Your task to perform on an android device: open a bookmark in the chrome app Image 0: 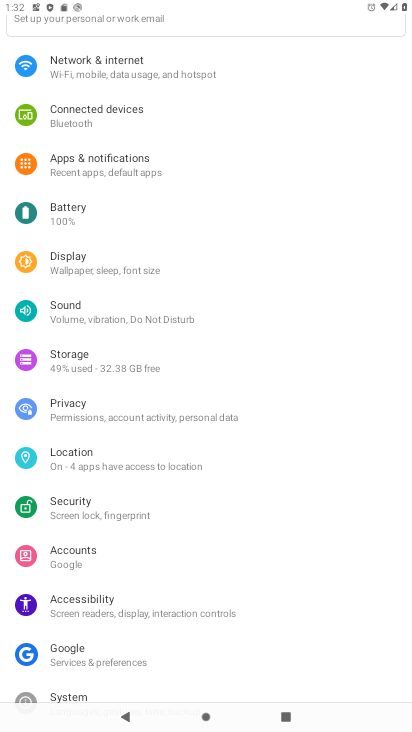
Step 0: press home button
Your task to perform on an android device: open a bookmark in the chrome app Image 1: 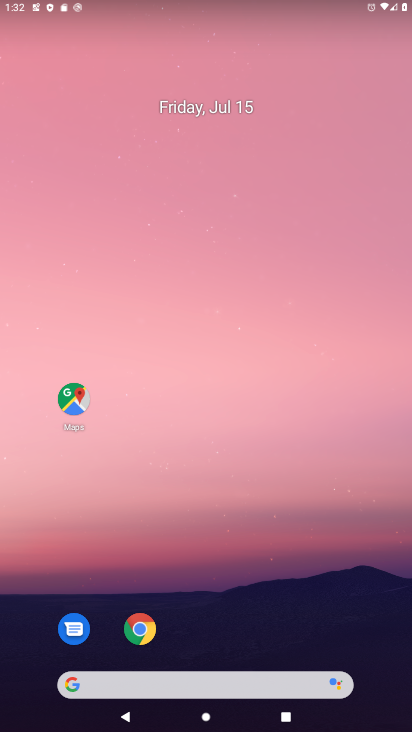
Step 1: drag from (321, 644) to (272, 137)
Your task to perform on an android device: open a bookmark in the chrome app Image 2: 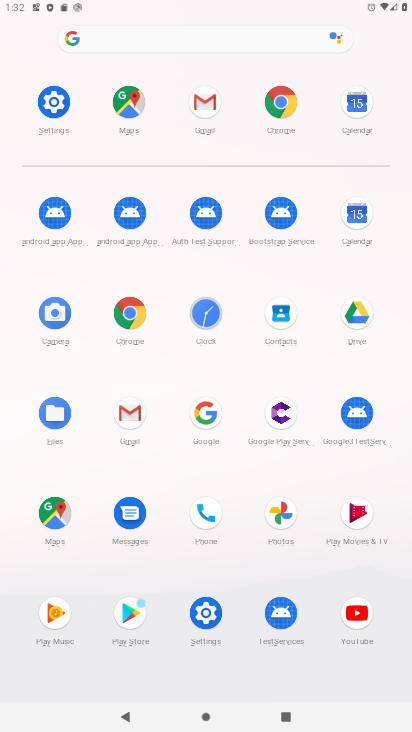
Step 2: click (135, 317)
Your task to perform on an android device: open a bookmark in the chrome app Image 3: 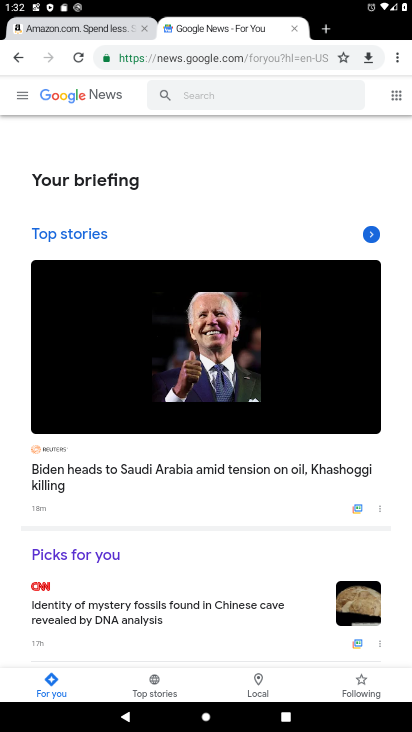
Step 3: drag from (403, 53) to (309, 161)
Your task to perform on an android device: open a bookmark in the chrome app Image 4: 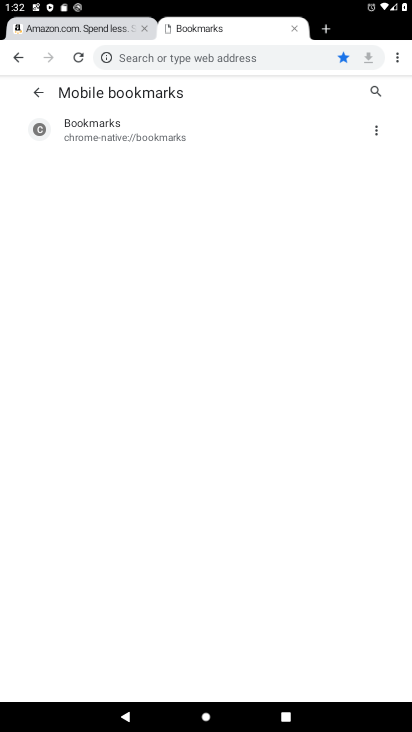
Step 4: click (136, 136)
Your task to perform on an android device: open a bookmark in the chrome app Image 5: 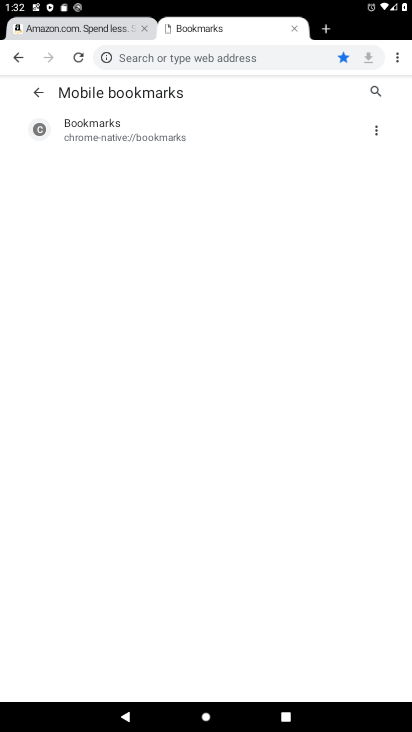
Step 5: click (101, 133)
Your task to perform on an android device: open a bookmark in the chrome app Image 6: 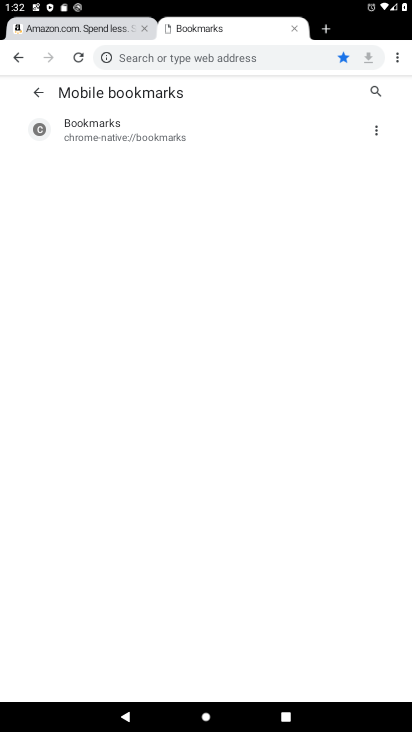
Step 6: click (109, 122)
Your task to perform on an android device: open a bookmark in the chrome app Image 7: 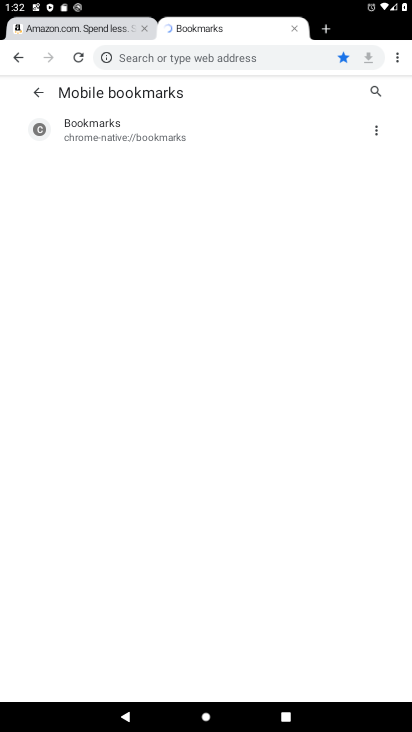
Step 7: click (147, 137)
Your task to perform on an android device: open a bookmark in the chrome app Image 8: 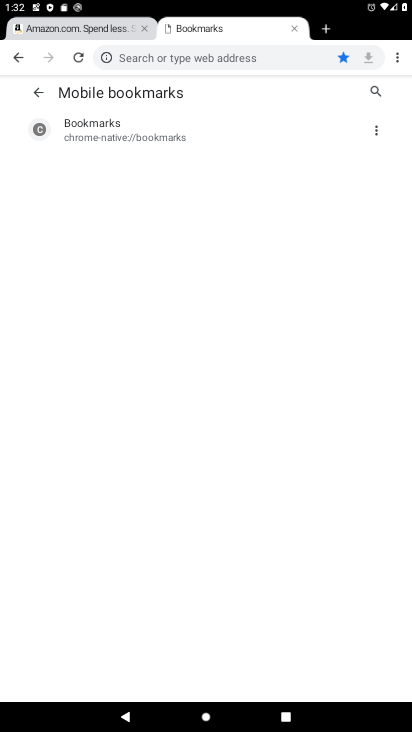
Step 8: click (163, 131)
Your task to perform on an android device: open a bookmark in the chrome app Image 9: 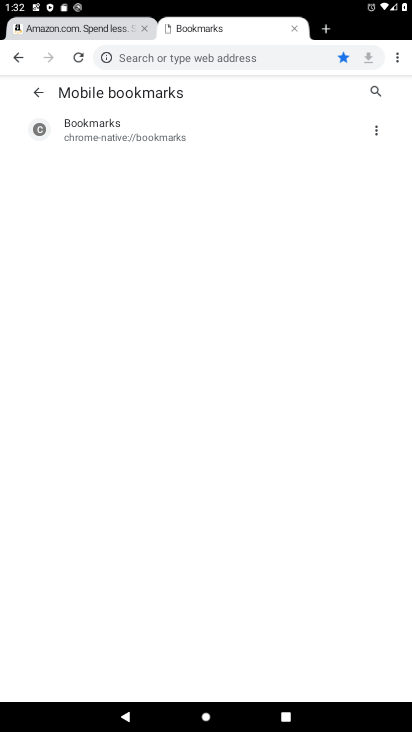
Step 9: click (212, 134)
Your task to perform on an android device: open a bookmark in the chrome app Image 10: 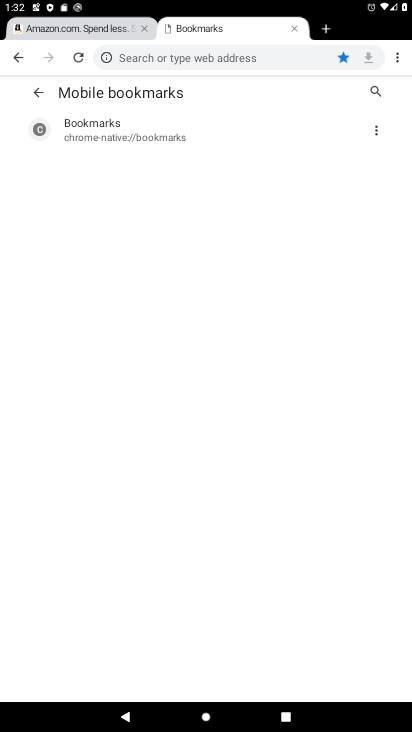
Step 10: click (184, 133)
Your task to perform on an android device: open a bookmark in the chrome app Image 11: 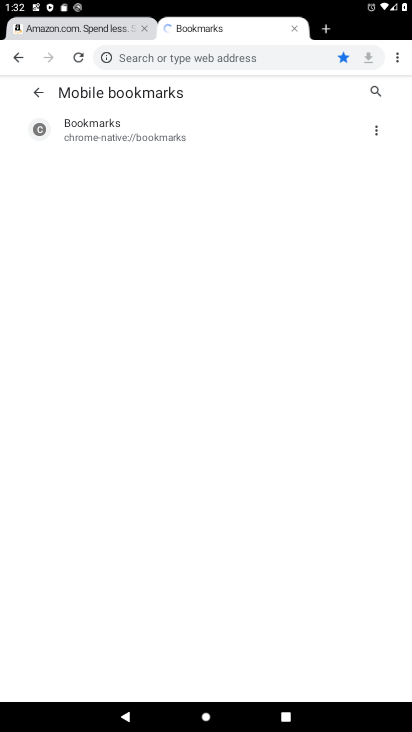
Step 11: click (54, 137)
Your task to perform on an android device: open a bookmark in the chrome app Image 12: 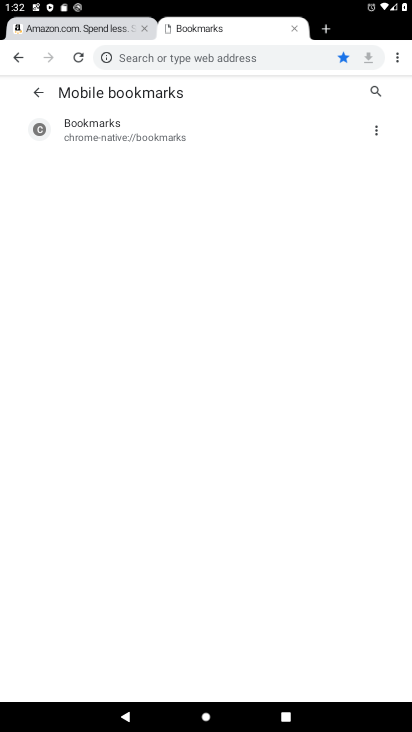
Step 12: task complete